Your task to perform on an android device: turn off notifications settings in the gmail app Image 0: 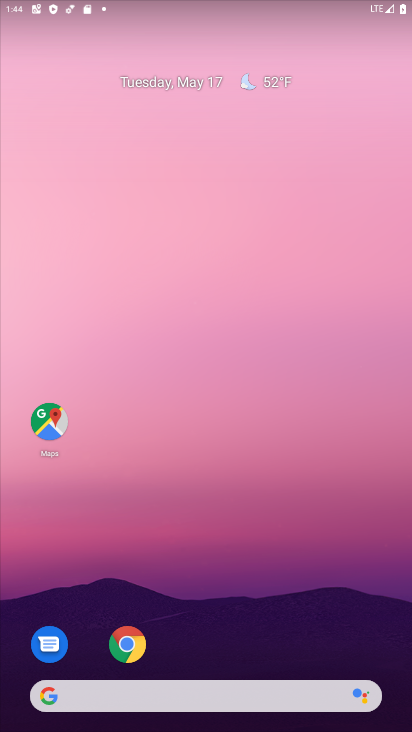
Step 0: drag from (204, 687) to (259, 207)
Your task to perform on an android device: turn off notifications settings in the gmail app Image 1: 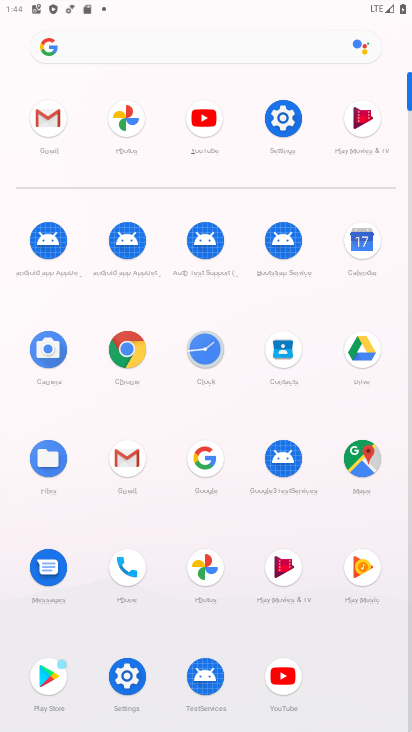
Step 1: click (113, 449)
Your task to perform on an android device: turn off notifications settings in the gmail app Image 2: 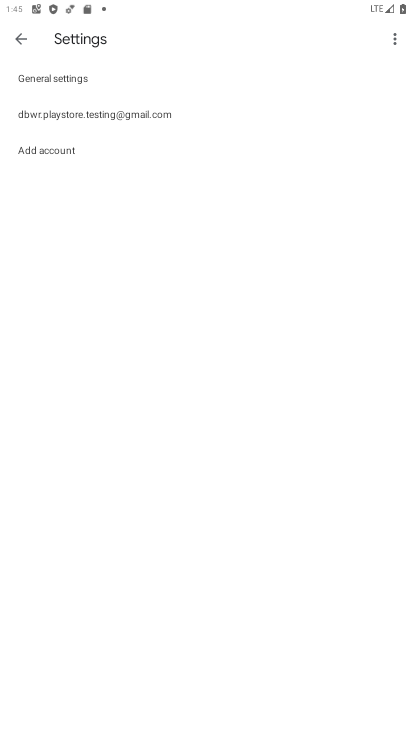
Step 2: click (87, 117)
Your task to perform on an android device: turn off notifications settings in the gmail app Image 3: 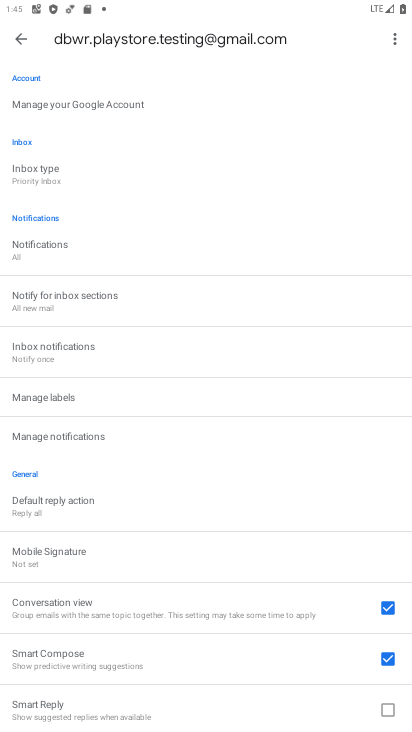
Step 3: click (114, 431)
Your task to perform on an android device: turn off notifications settings in the gmail app Image 4: 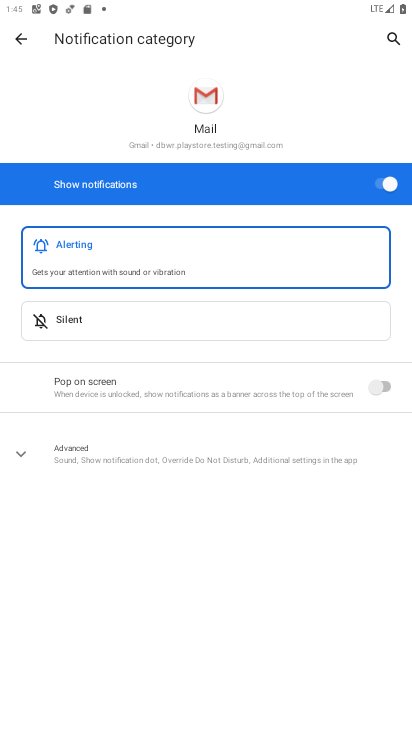
Step 4: click (393, 187)
Your task to perform on an android device: turn off notifications settings in the gmail app Image 5: 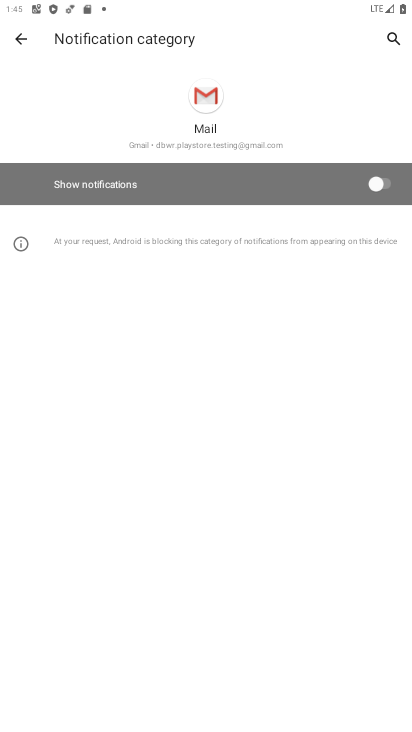
Step 5: task complete